Your task to perform on an android device: Go to calendar. Show me events next week Image 0: 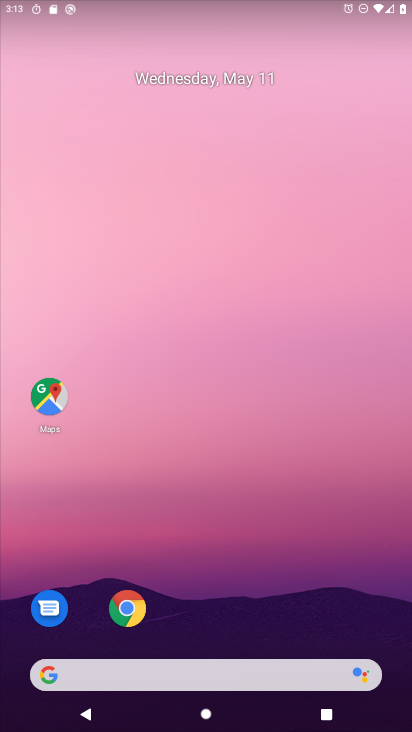
Step 0: drag from (210, 583) to (358, 0)
Your task to perform on an android device: Go to calendar. Show me events next week Image 1: 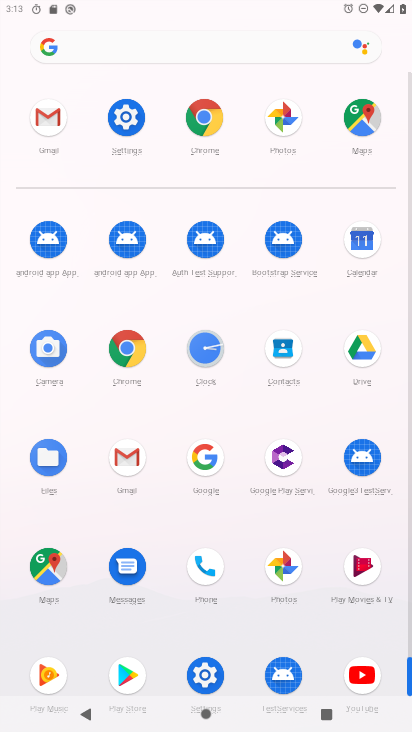
Step 1: click (358, 263)
Your task to perform on an android device: Go to calendar. Show me events next week Image 2: 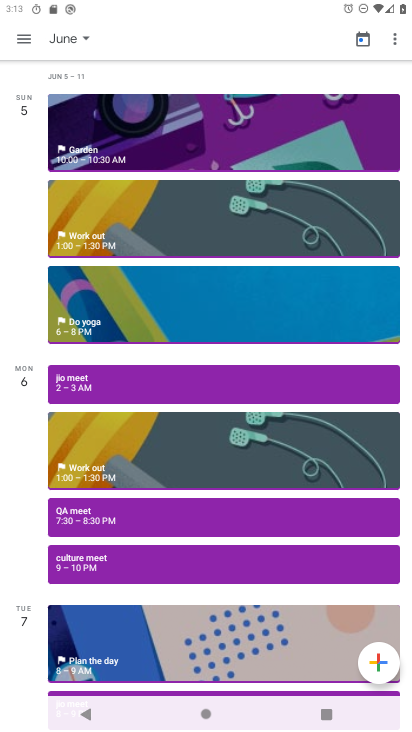
Step 2: click (89, 37)
Your task to perform on an android device: Go to calendar. Show me events next week Image 3: 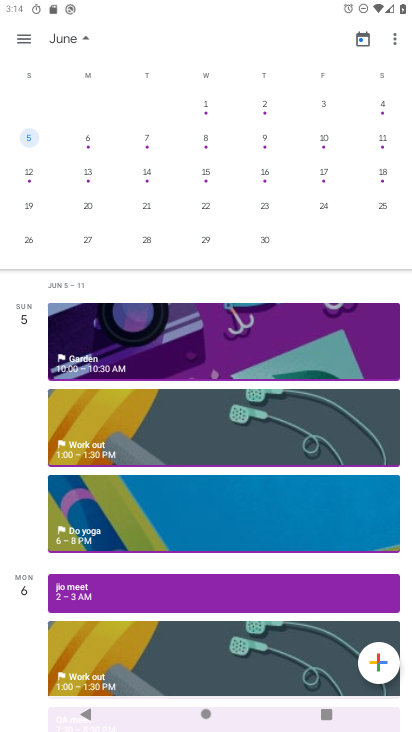
Step 3: drag from (163, 199) to (403, 201)
Your task to perform on an android device: Go to calendar. Show me events next week Image 4: 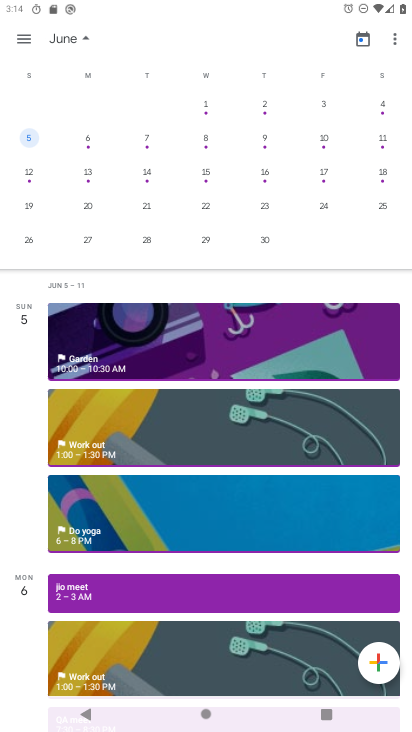
Step 4: drag from (58, 188) to (400, 245)
Your task to perform on an android device: Go to calendar. Show me events next week Image 5: 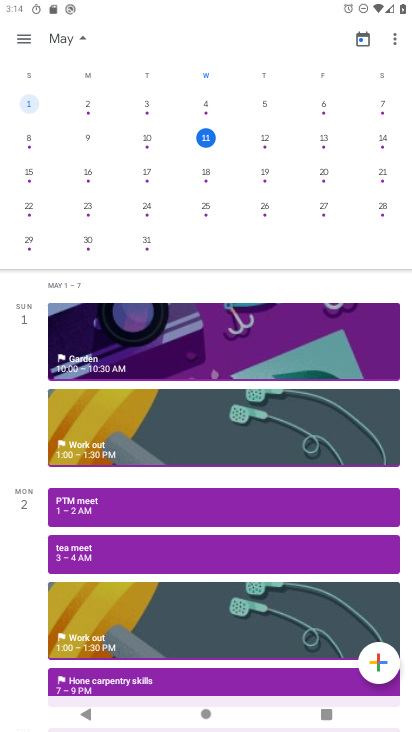
Step 5: click (208, 145)
Your task to perform on an android device: Go to calendar. Show me events next week Image 6: 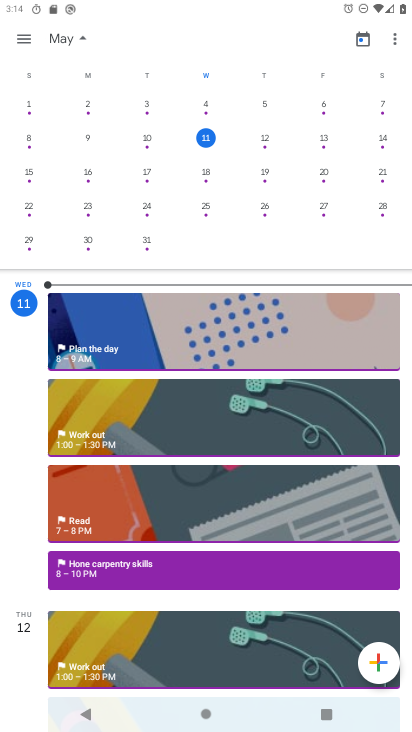
Step 6: task complete